Your task to perform on an android device: turn on javascript in the chrome app Image 0: 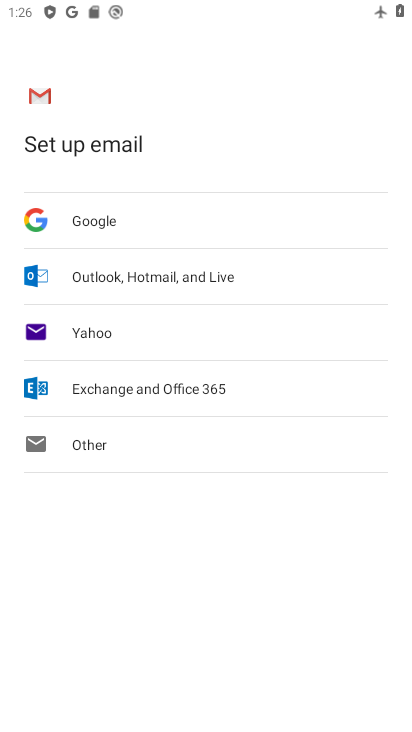
Step 0: press home button
Your task to perform on an android device: turn on javascript in the chrome app Image 1: 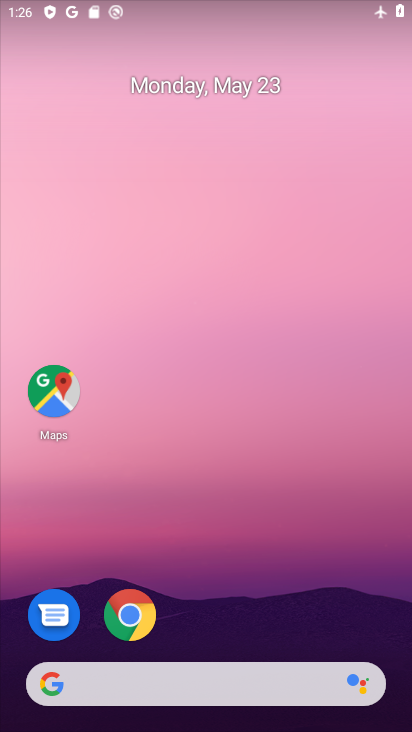
Step 1: click (138, 598)
Your task to perform on an android device: turn on javascript in the chrome app Image 2: 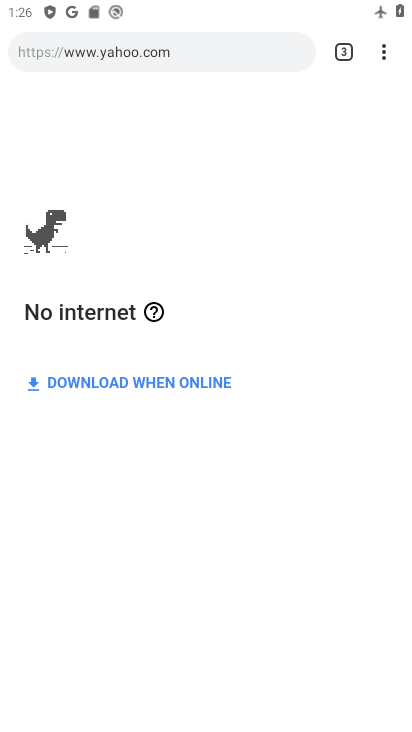
Step 2: click (387, 56)
Your task to perform on an android device: turn on javascript in the chrome app Image 3: 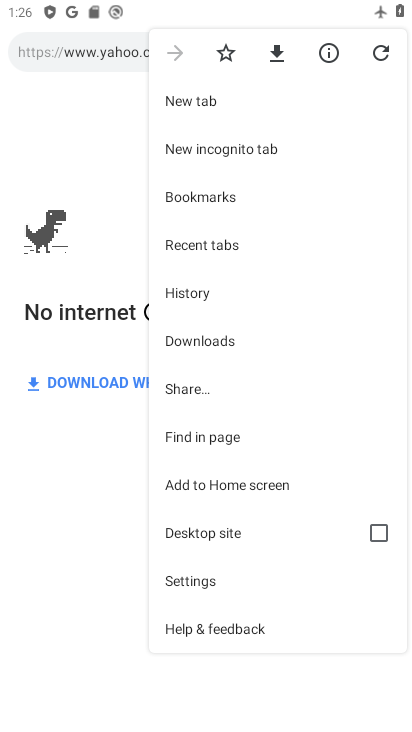
Step 3: click (230, 574)
Your task to perform on an android device: turn on javascript in the chrome app Image 4: 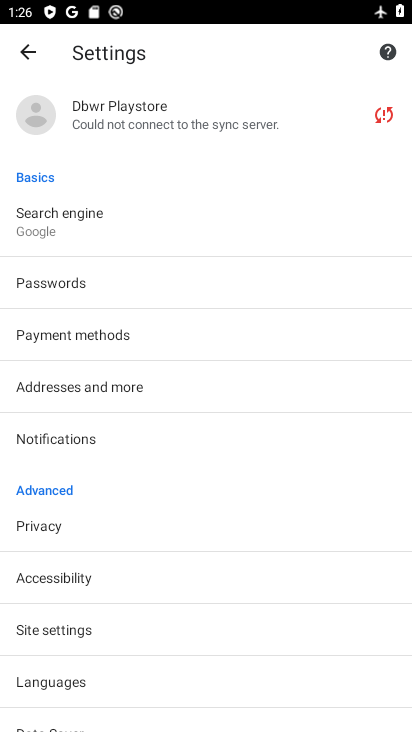
Step 4: drag from (230, 574) to (210, 291)
Your task to perform on an android device: turn on javascript in the chrome app Image 5: 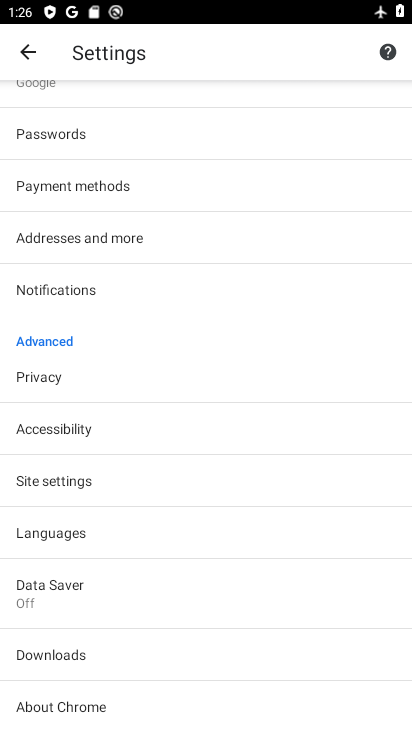
Step 5: click (43, 469)
Your task to perform on an android device: turn on javascript in the chrome app Image 6: 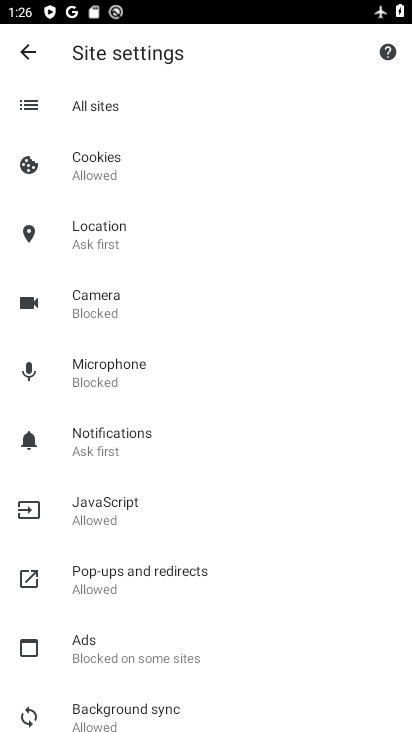
Step 6: click (85, 502)
Your task to perform on an android device: turn on javascript in the chrome app Image 7: 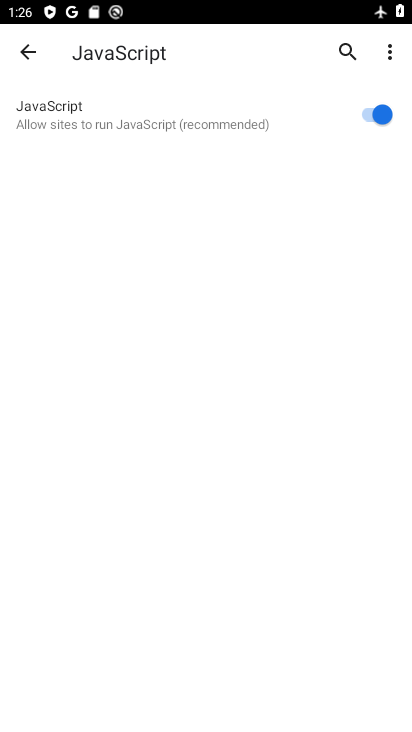
Step 7: task complete